Your task to perform on an android device: Clear the cart on costco. Search for bose soundlink mini on costco, select the first entry, and add it to the cart. Image 0: 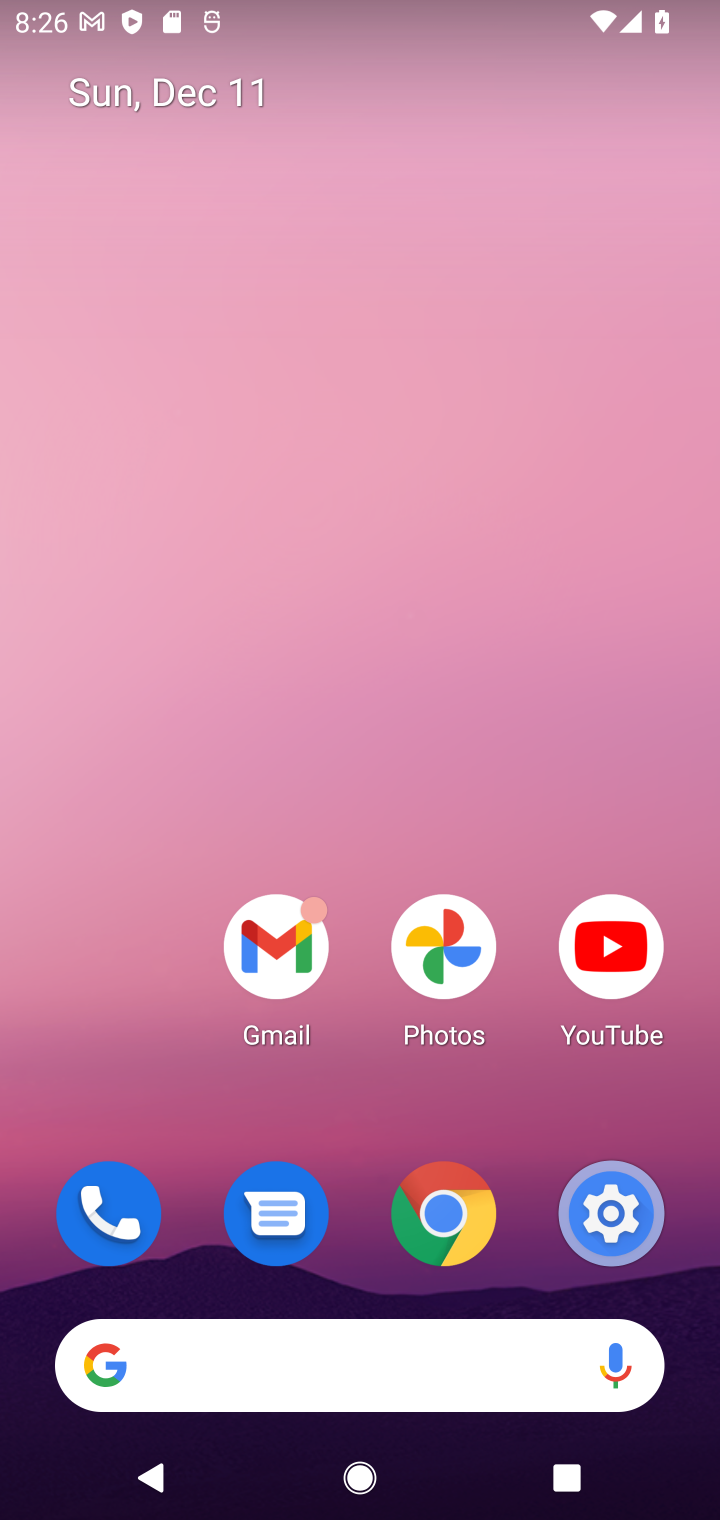
Step 0: click (361, 1381)
Your task to perform on an android device: Clear the cart on costco. Search for bose soundlink mini on costco, select the first entry, and add it to the cart. Image 1: 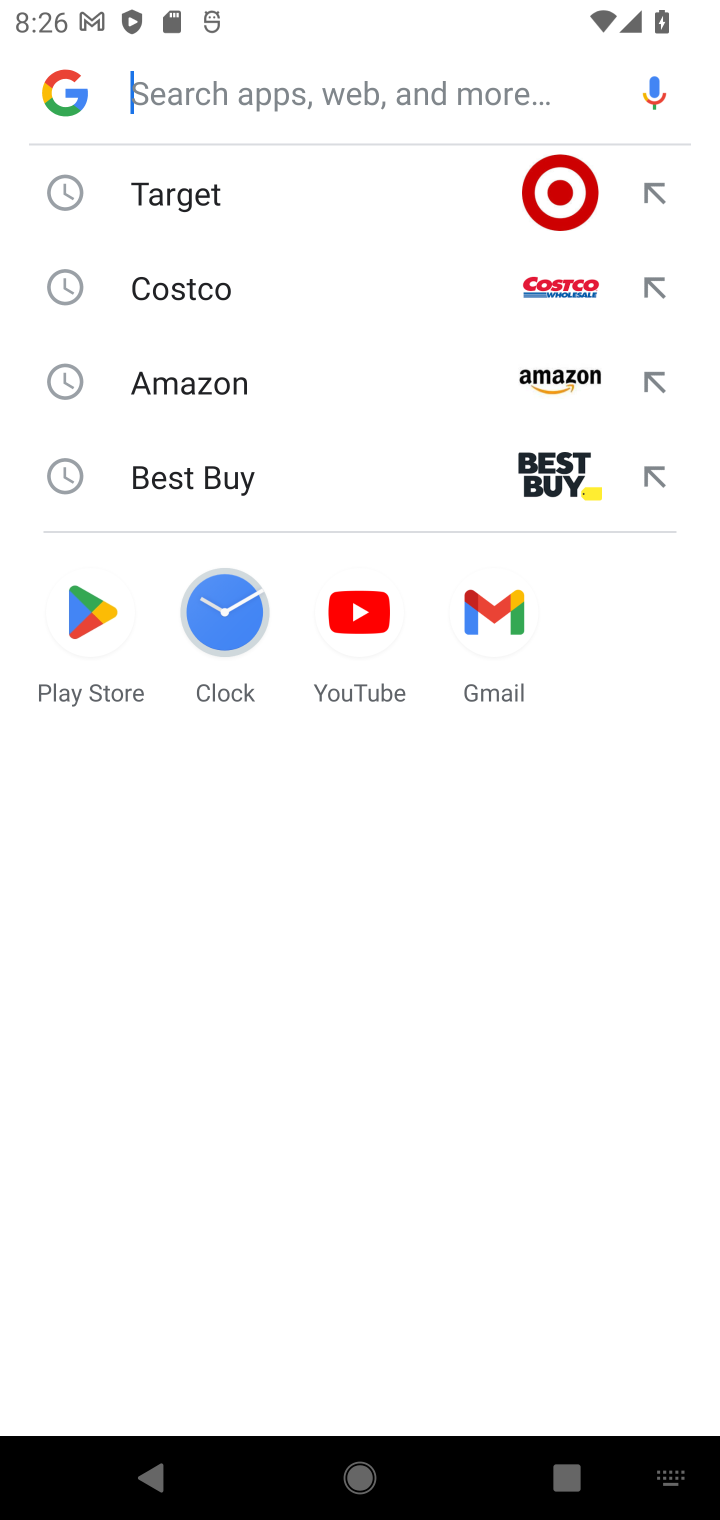
Step 1: type "costco"
Your task to perform on an android device: Clear the cart on costco. Search for bose soundlink mini on costco, select the first entry, and add it to the cart. Image 2: 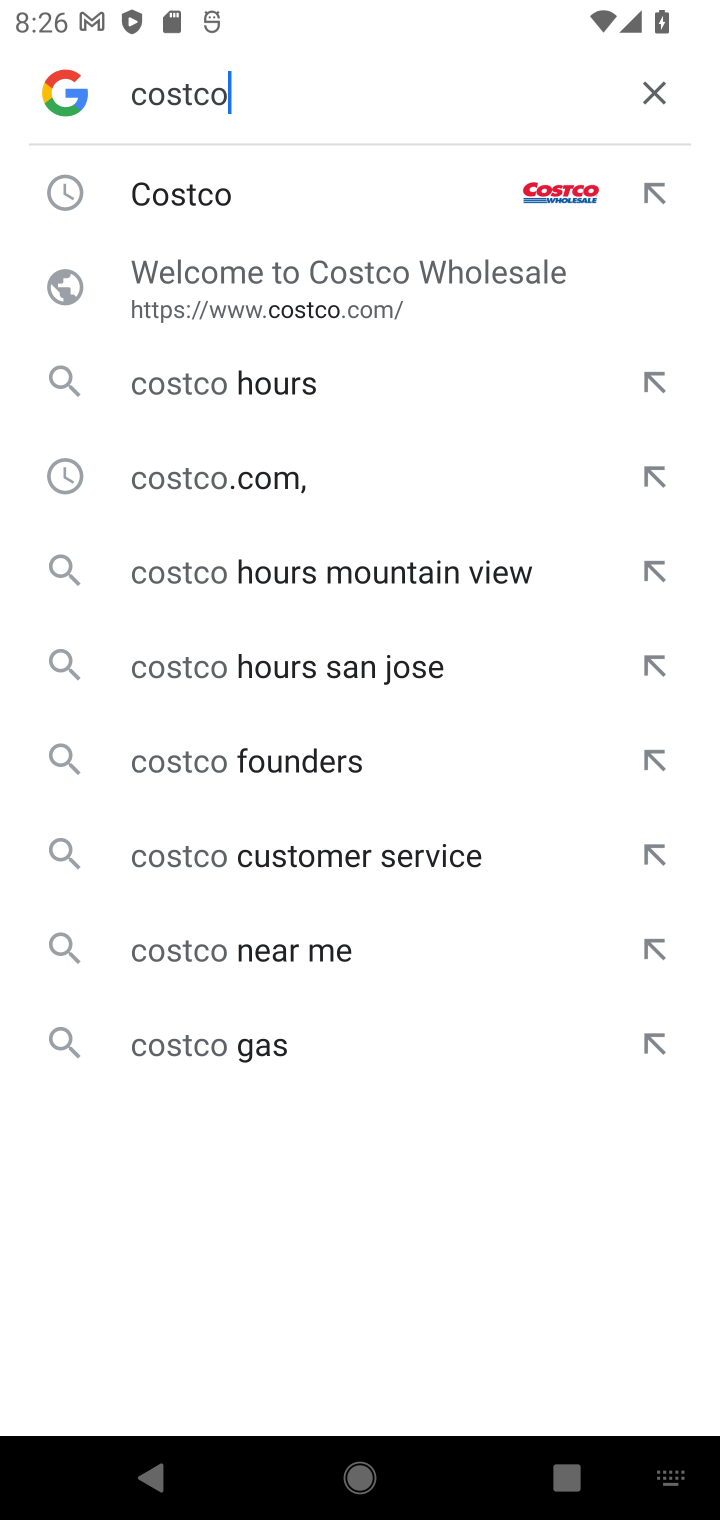
Step 2: click (190, 222)
Your task to perform on an android device: Clear the cart on costco. Search for bose soundlink mini on costco, select the first entry, and add it to the cart. Image 3: 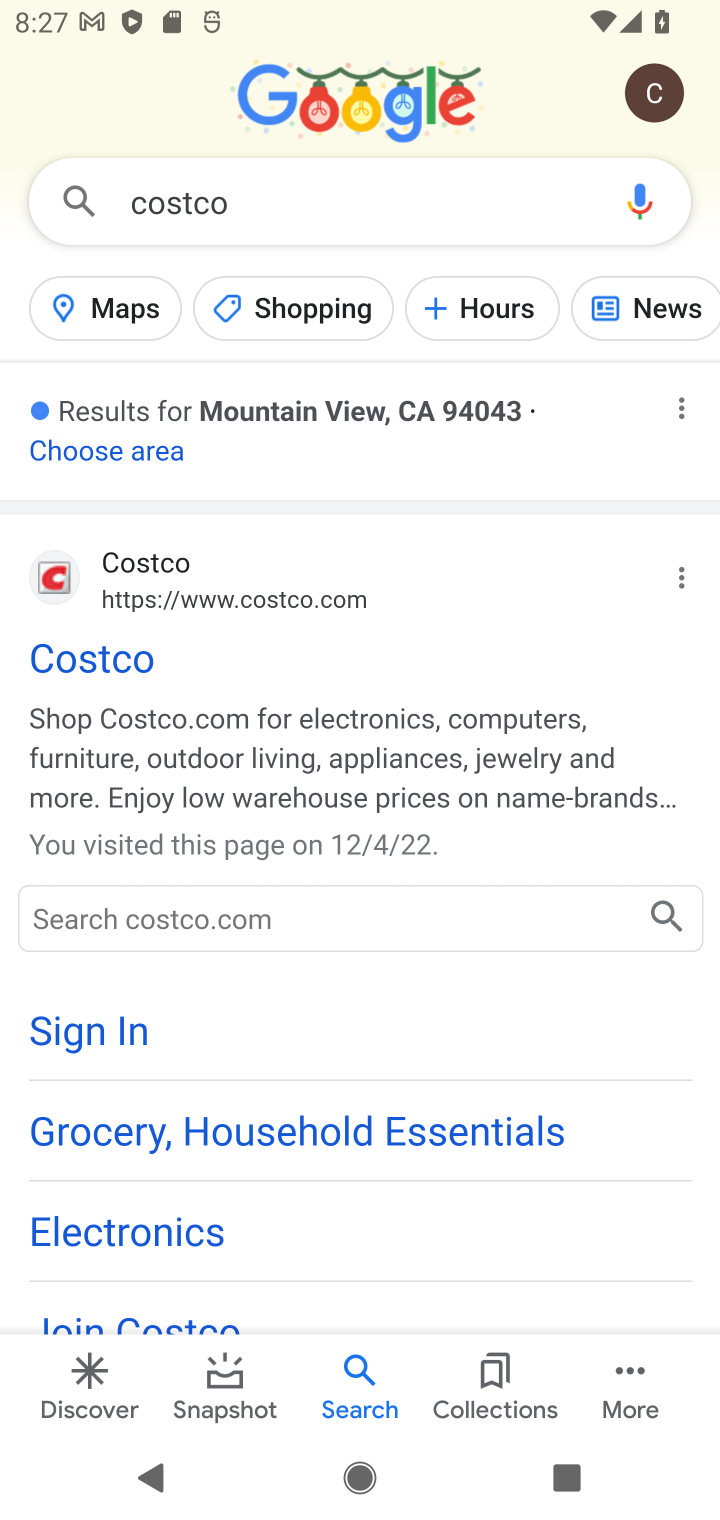
Step 3: click (153, 639)
Your task to perform on an android device: Clear the cart on costco. Search for bose soundlink mini on costco, select the first entry, and add it to the cart. Image 4: 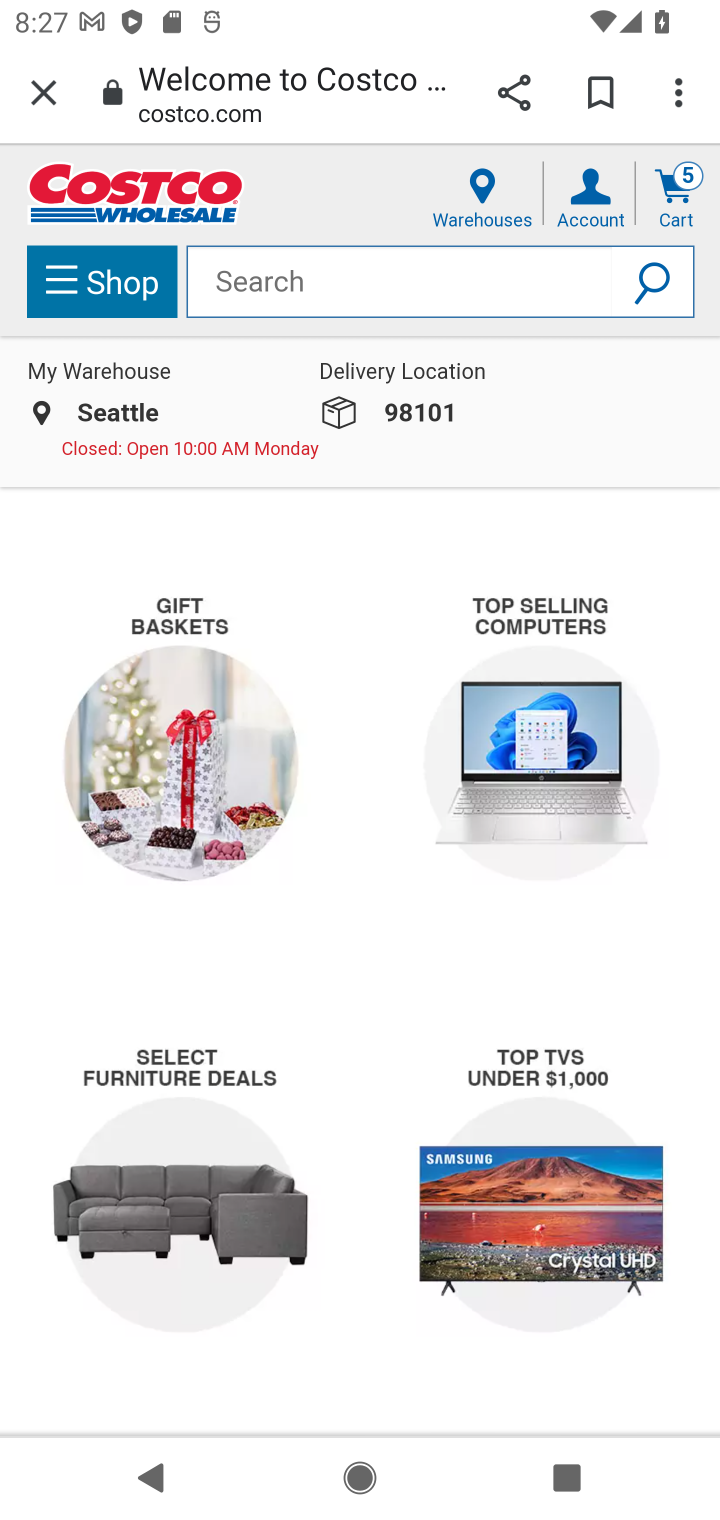
Step 4: click (294, 289)
Your task to perform on an android device: Clear the cart on costco. Search for bose soundlink mini on costco, select the first entry, and add it to the cart. Image 5: 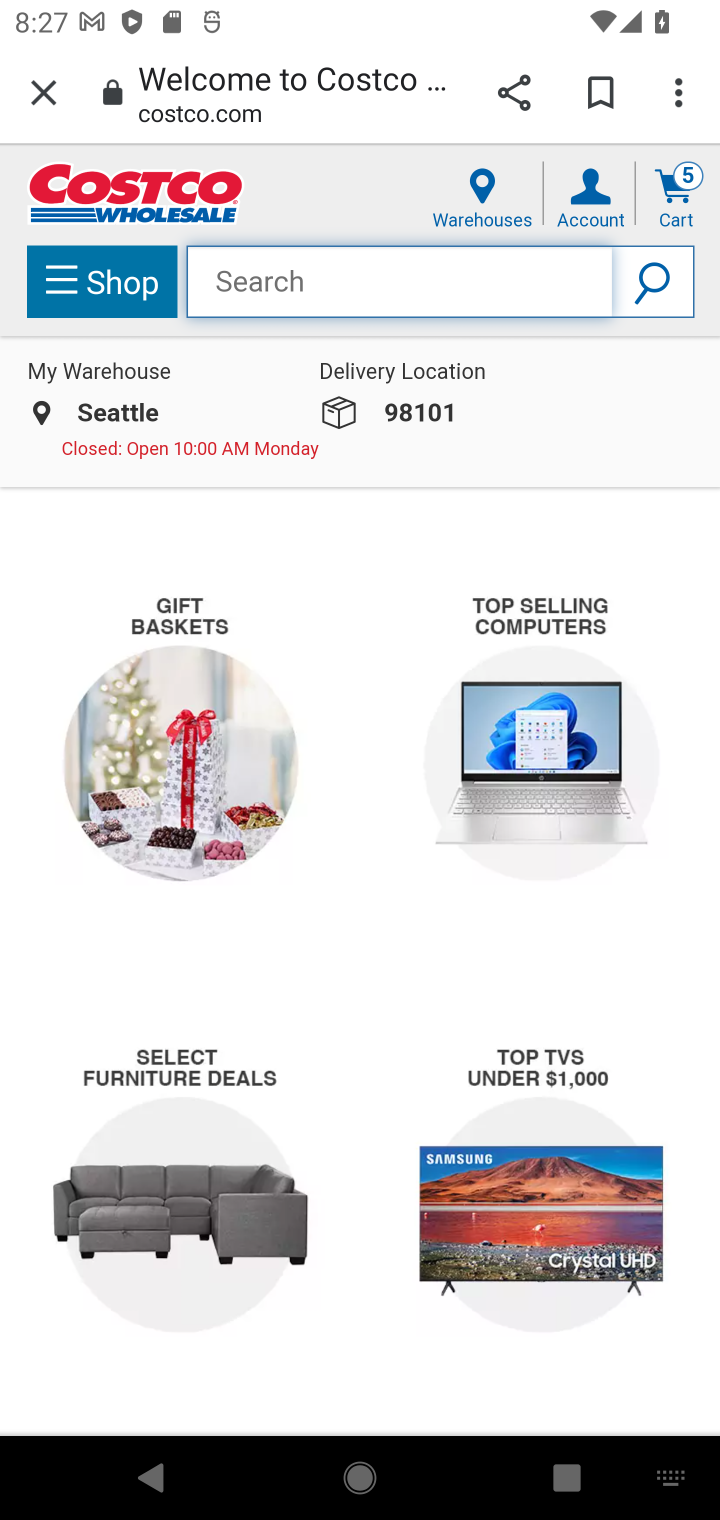
Step 5: type "bose soundlink"
Your task to perform on an android device: Clear the cart on costco. Search for bose soundlink mini on costco, select the first entry, and add it to the cart. Image 6: 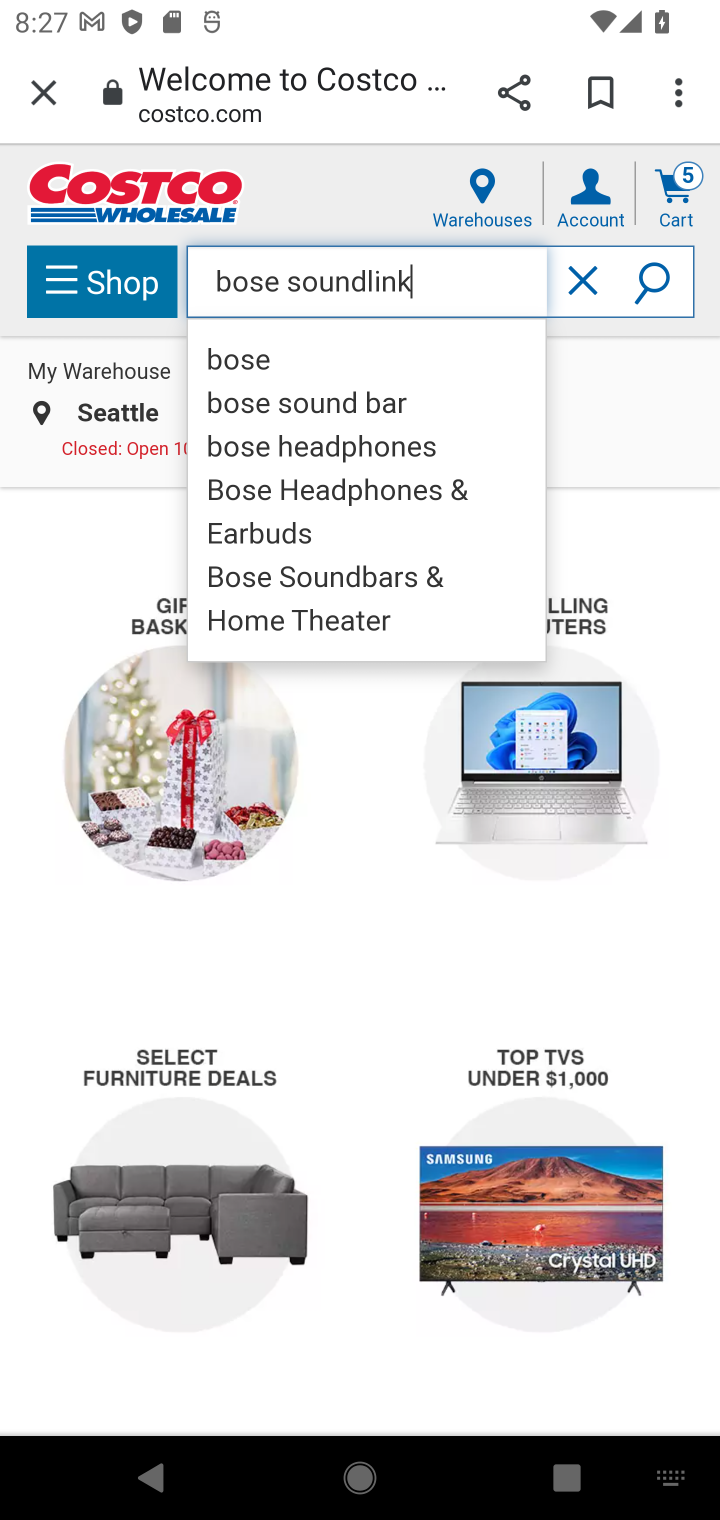
Step 6: click (691, 271)
Your task to perform on an android device: Clear the cart on costco. Search for bose soundlink mini on costco, select the first entry, and add it to the cart. Image 7: 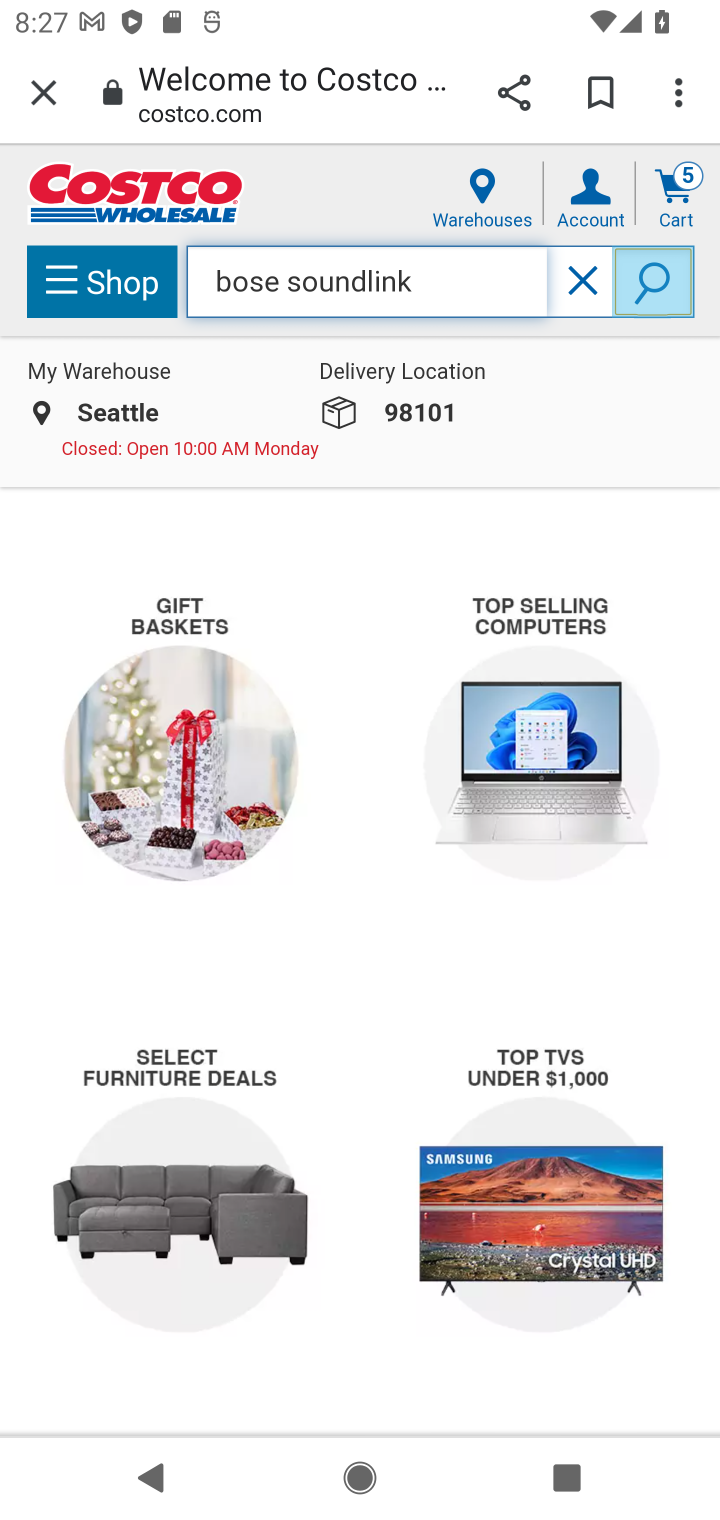
Step 7: click (665, 284)
Your task to perform on an android device: Clear the cart on costco. Search for bose soundlink mini on costco, select the first entry, and add it to the cart. Image 8: 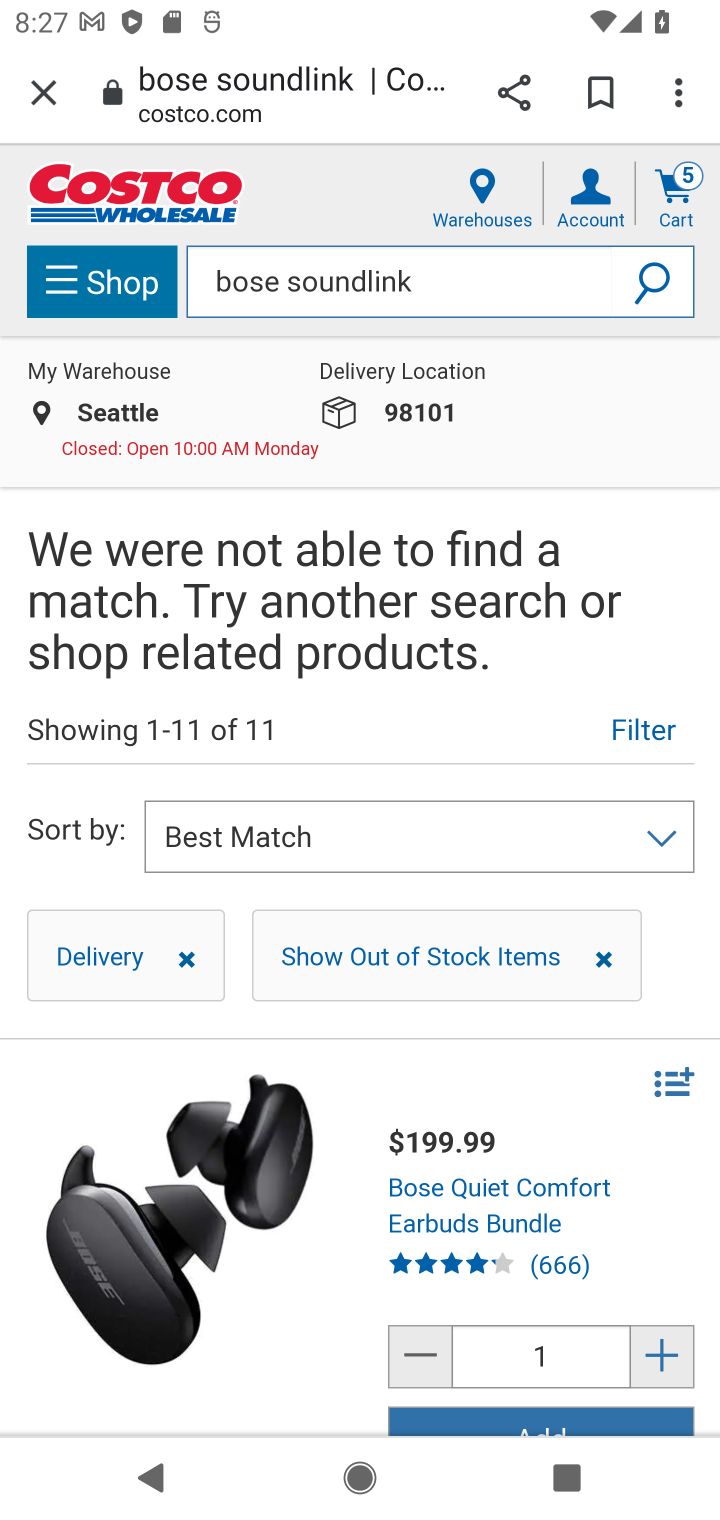
Step 8: click (538, 1426)
Your task to perform on an android device: Clear the cart on costco. Search for bose soundlink mini on costco, select the first entry, and add it to the cart. Image 9: 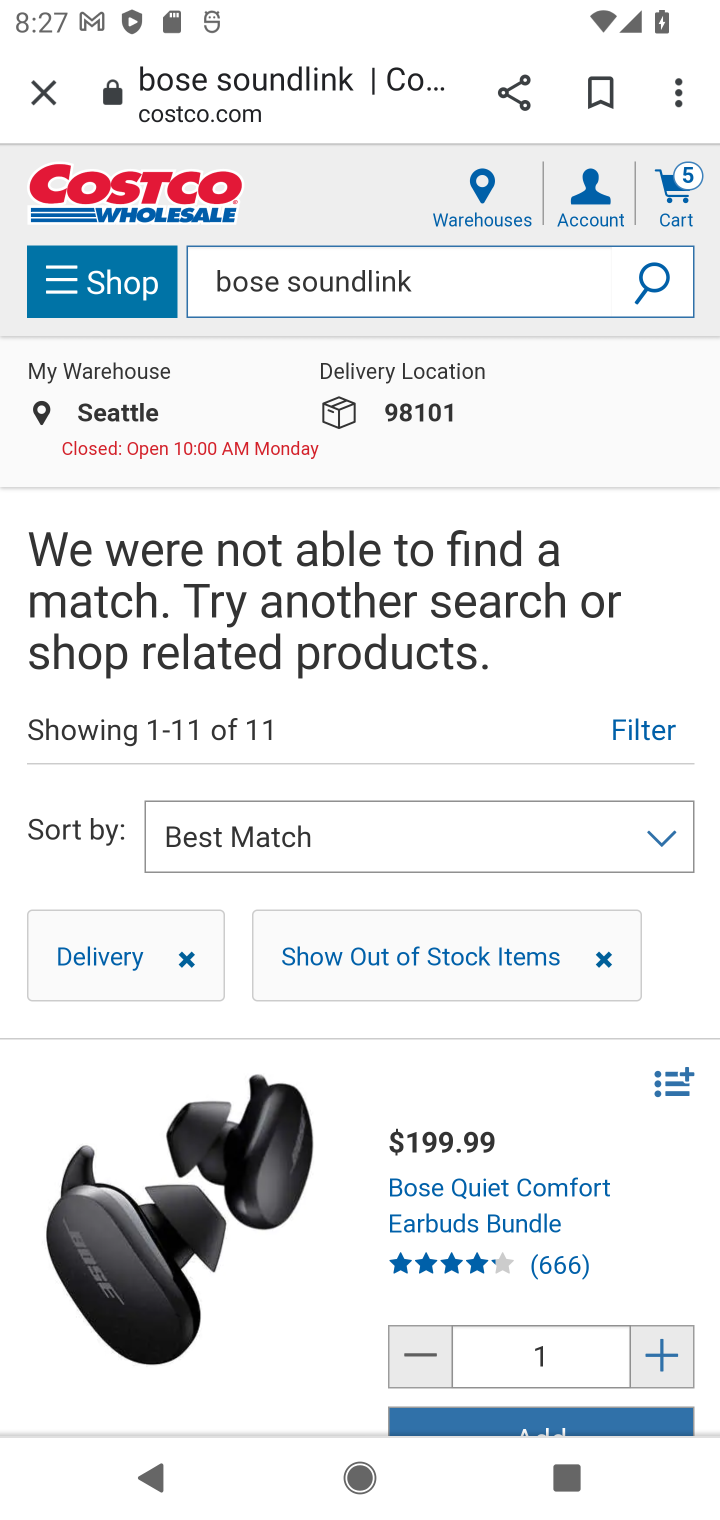
Step 9: task complete